Your task to perform on an android device: move an email to a new category in the gmail app Image 0: 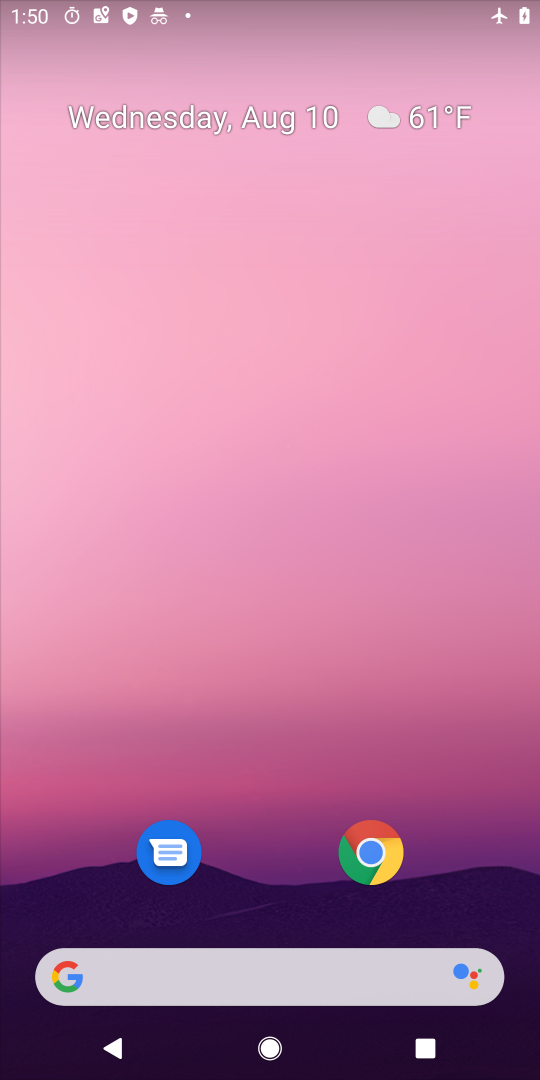
Step 0: drag from (249, 765) to (308, 0)
Your task to perform on an android device: move an email to a new category in the gmail app Image 1: 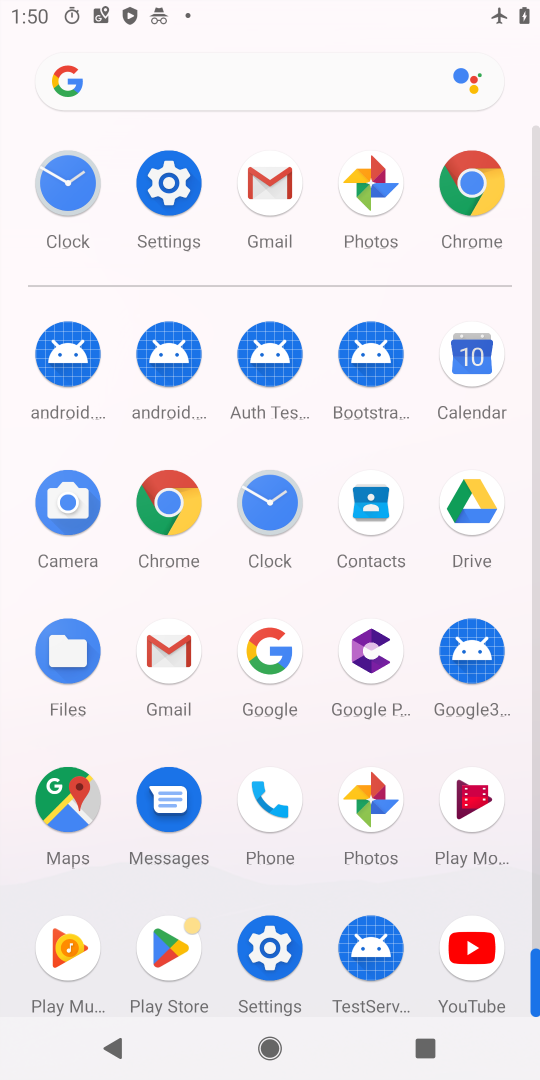
Step 1: click (180, 644)
Your task to perform on an android device: move an email to a new category in the gmail app Image 2: 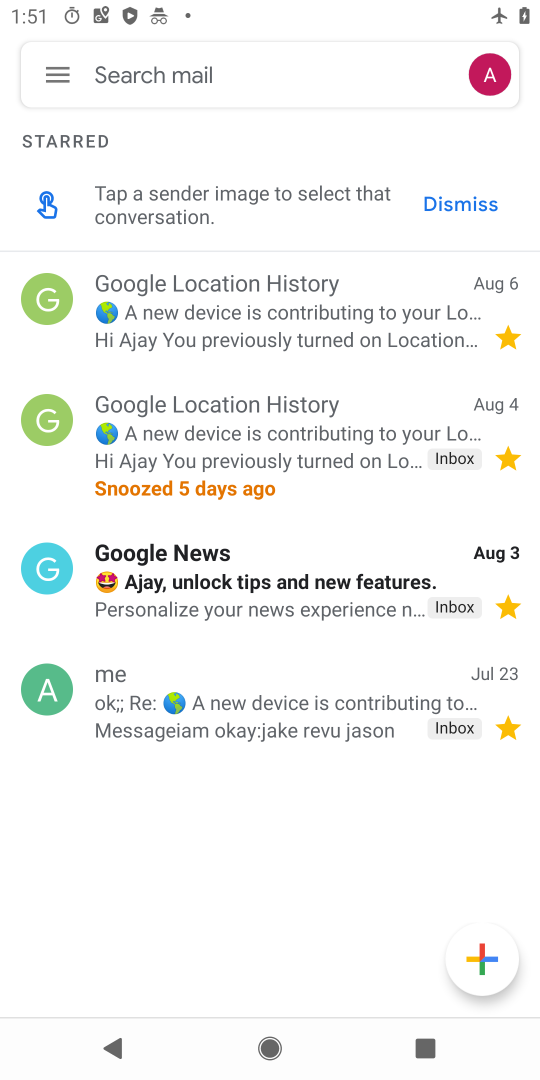
Step 2: click (58, 90)
Your task to perform on an android device: move an email to a new category in the gmail app Image 3: 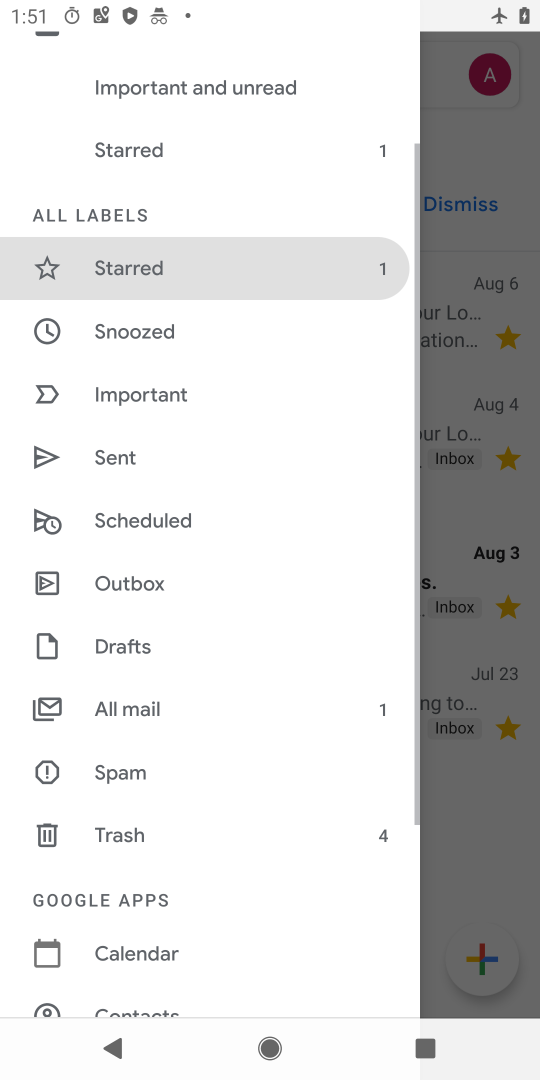
Step 3: drag from (123, 912) to (235, 304)
Your task to perform on an android device: move an email to a new category in the gmail app Image 4: 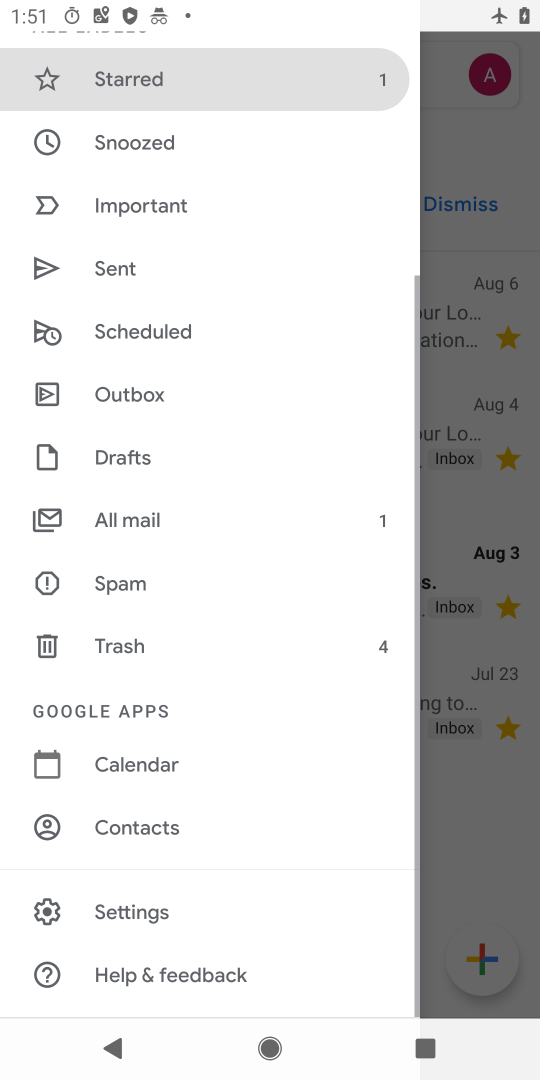
Step 4: click (139, 942)
Your task to perform on an android device: move an email to a new category in the gmail app Image 5: 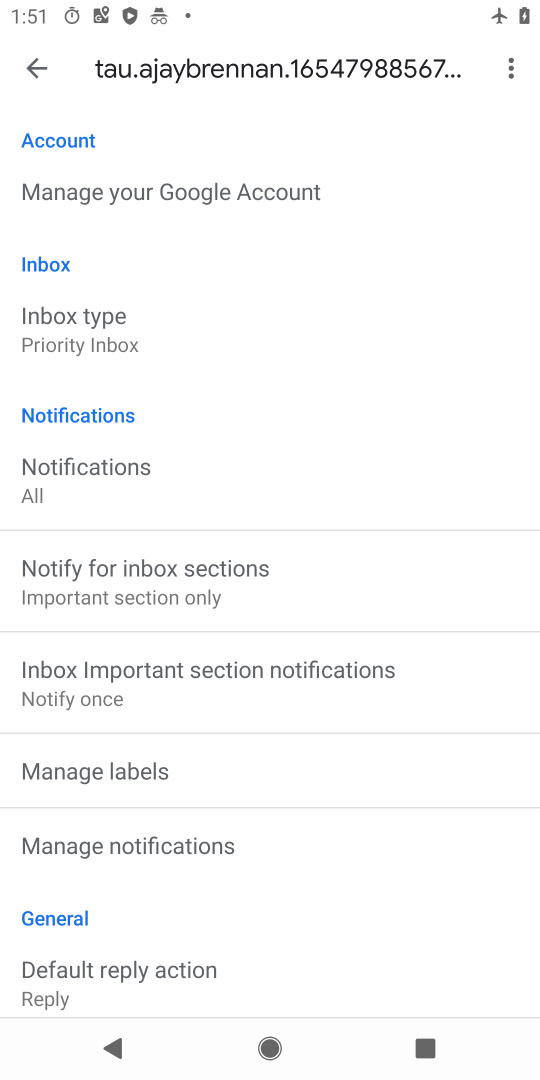
Step 5: click (133, 765)
Your task to perform on an android device: move an email to a new category in the gmail app Image 6: 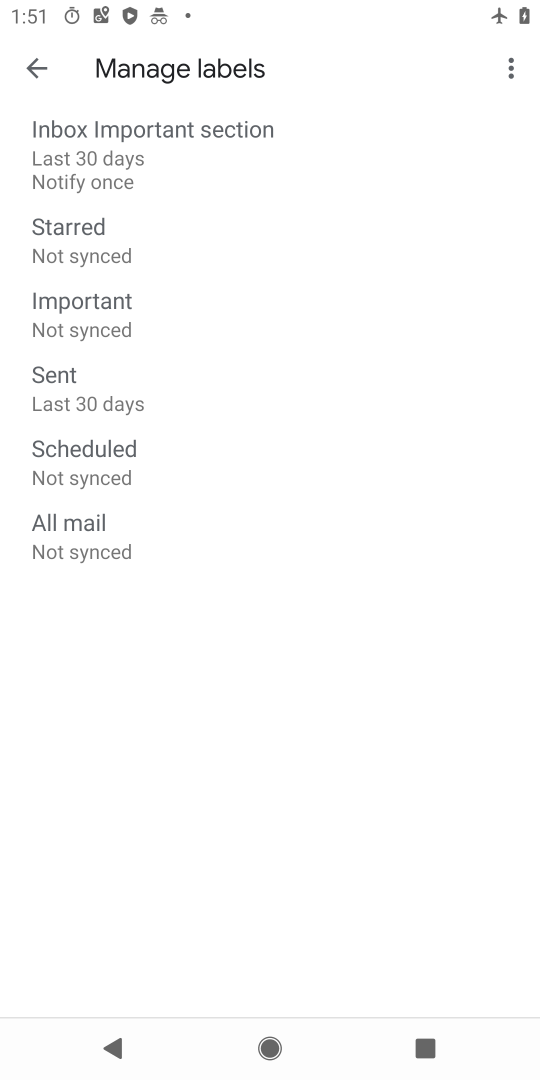
Step 6: click (506, 72)
Your task to perform on an android device: move an email to a new category in the gmail app Image 7: 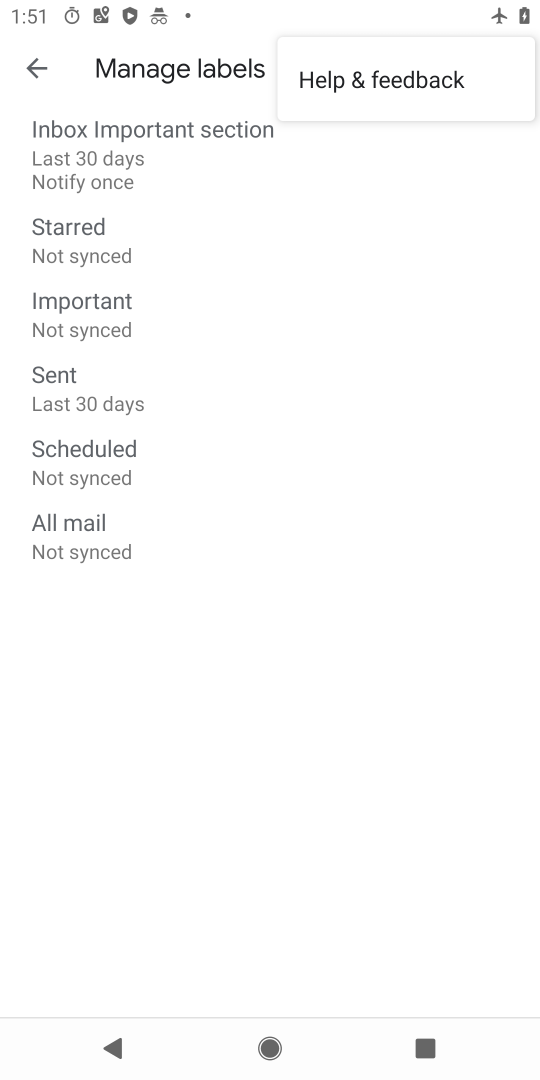
Step 7: click (409, 313)
Your task to perform on an android device: move an email to a new category in the gmail app Image 8: 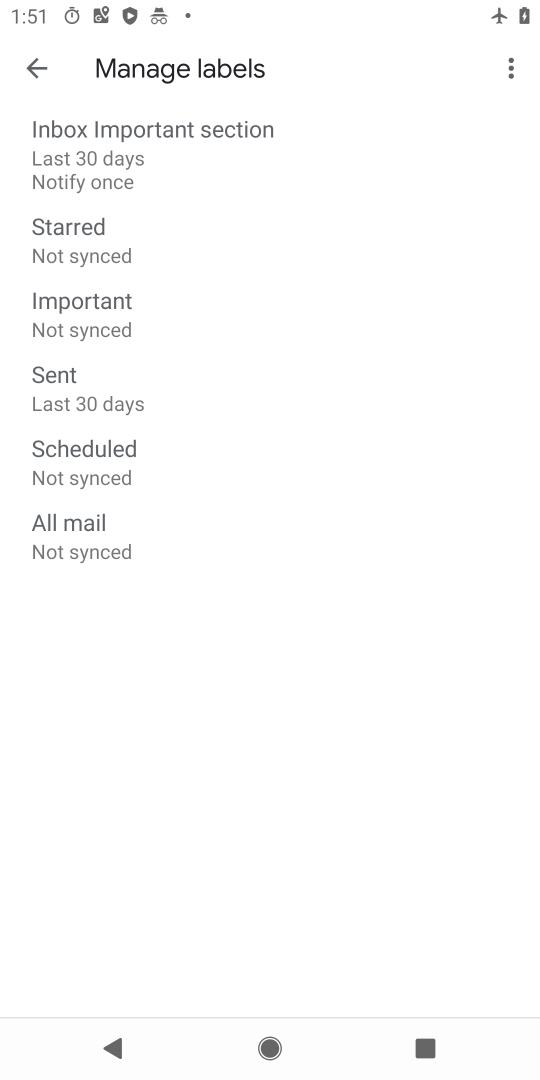
Step 8: task complete